Your task to perform on an android device: Open Chrome and go to settings Image 0: 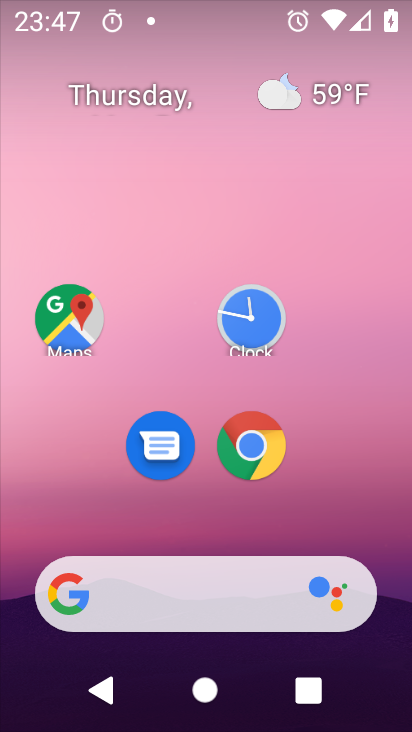
Step 0: click (261, 450)
Your task to perform on an android device: Open Chrome and go to settings Image 1: 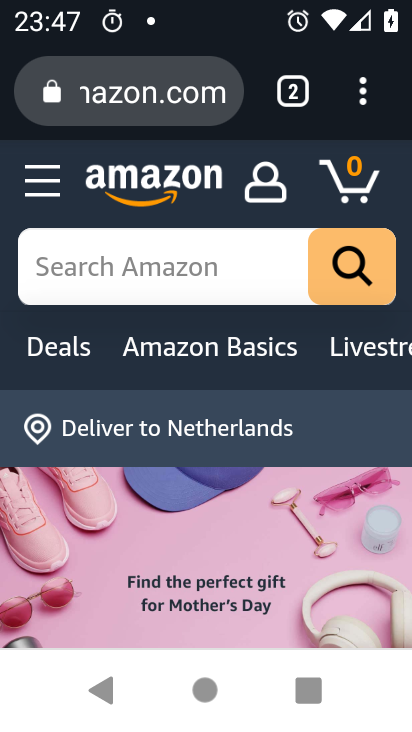
Step 1: task complete